Your task to perform on an android device: Is it going to rain today? Image 0: 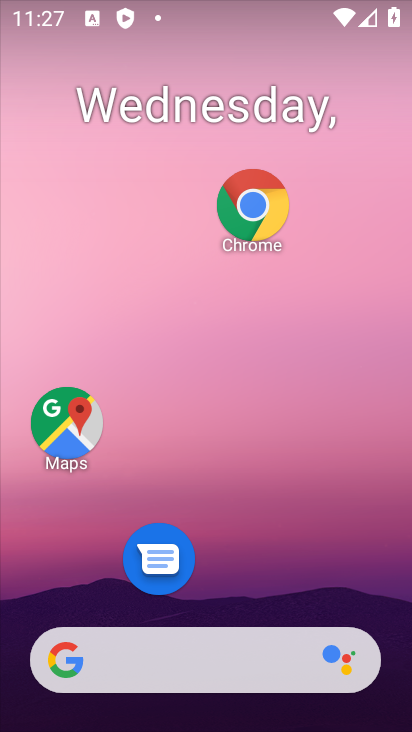
Step 0: drag from (289, 596) to (302, 41)
Your task to perform on an android device: Is it going to rain today? Image 1: 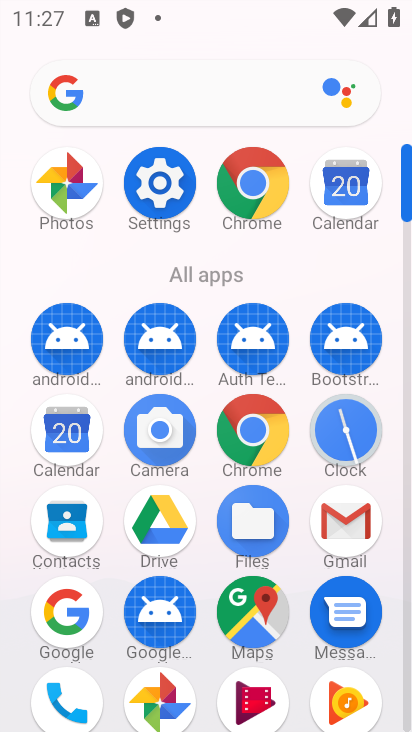
Step 1: drag from (290, 655) to (314, 195)
Your task to perform on an android device: Is it going to rain today? Image 2: 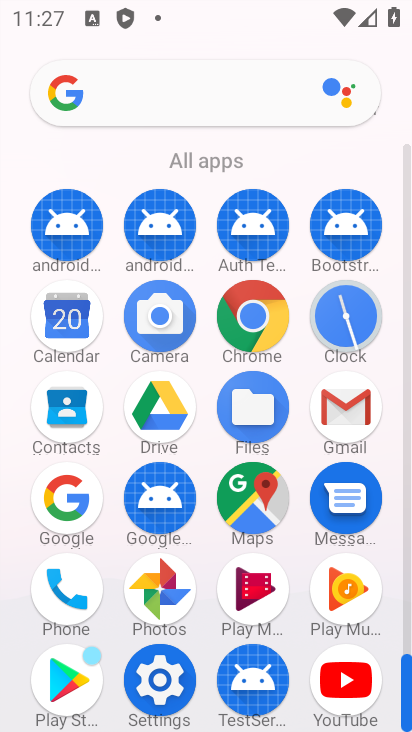
Step 2: click (281, 324)
Your task to perform on an android device: Is it going to rain today? Image 3: 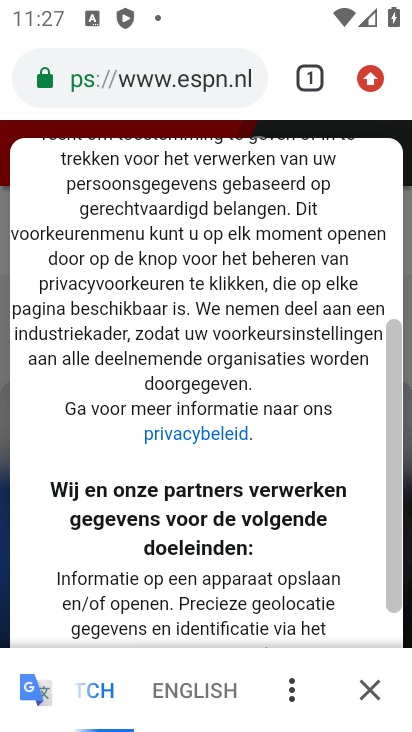
Step 3: click (132, 72)
Your task to perform on an android device: Is it going to rain today? Image 4: 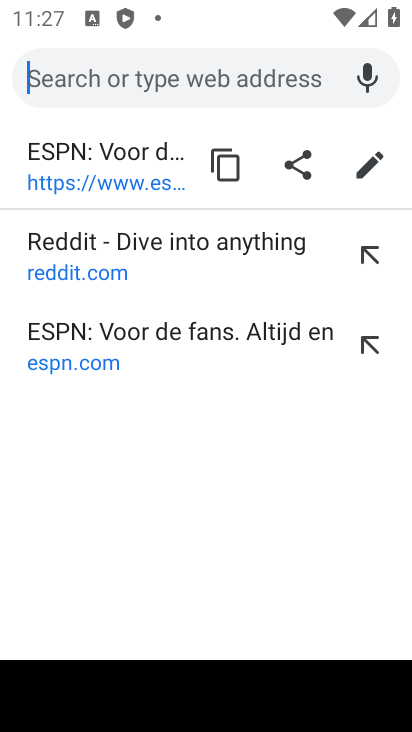
Step 4: type "rain today"
Your task to perform on an android device: Is it going to rain today? Image 5: 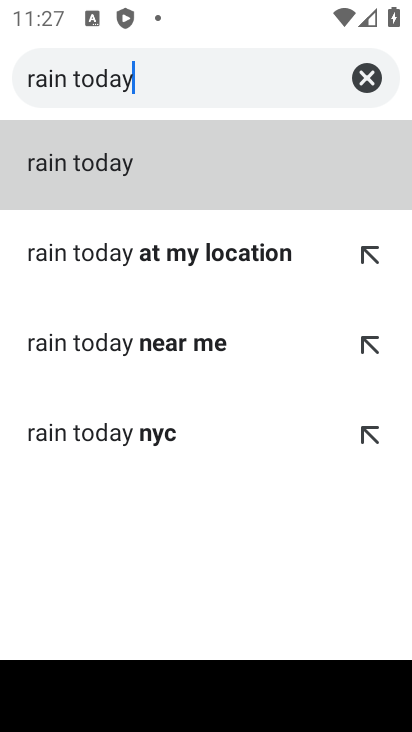
Step 5: click (210, 180)
Your task to perform on an android device: Is it going to rain today? Image 6: 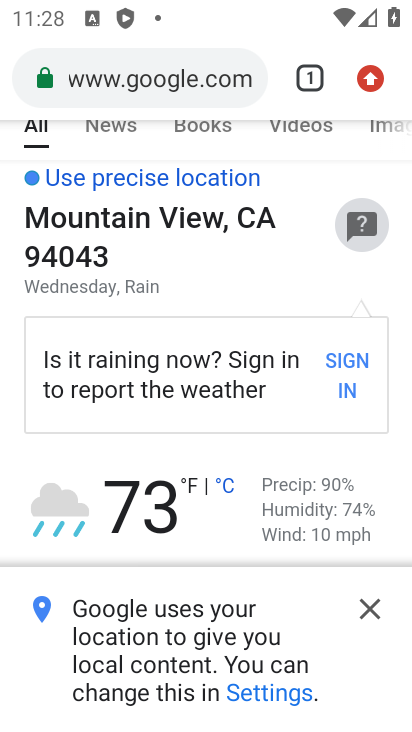
Step 6: task complete